Your task to perform on an android device: Open Maps and search for coffee Image 0: 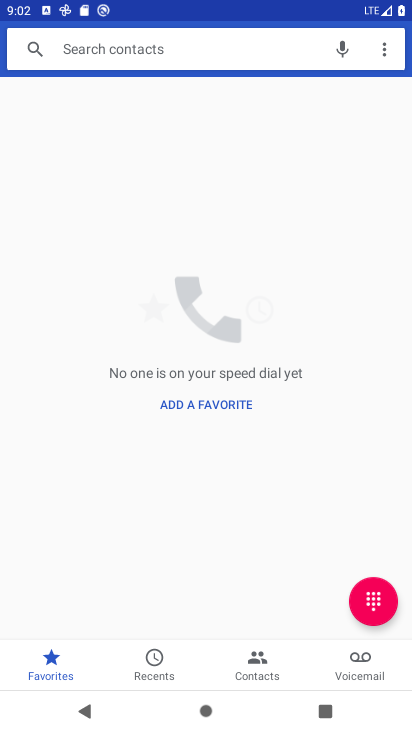
Step 0: press home button
Your task to perform on an android device: Open Maps and search for coffee Image 1: 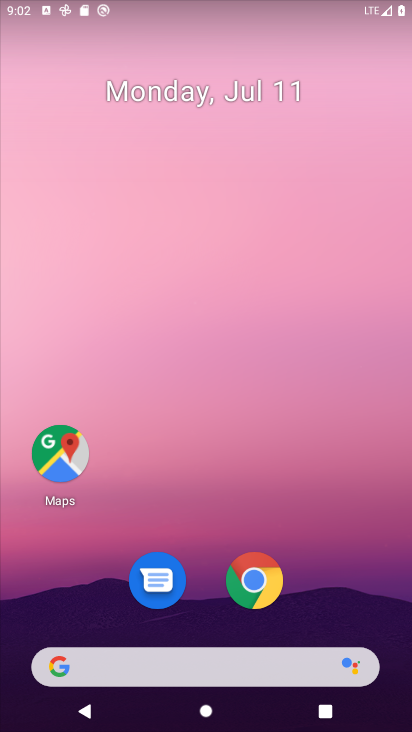
Step 1: click (54, 449)
Your task to perform on an android device: Open Maps and search for coffee Image 2: 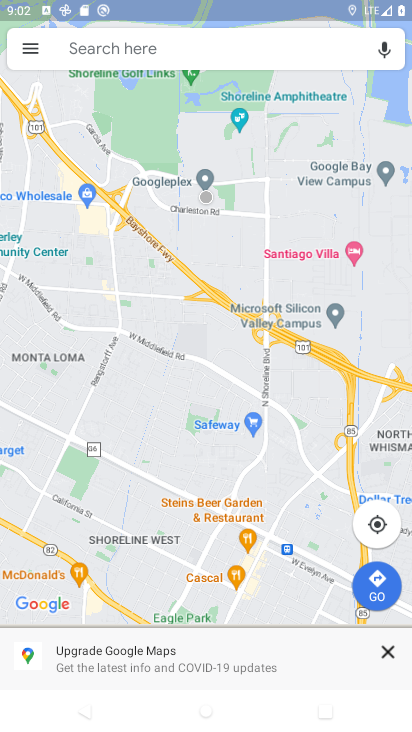
Step 2: click (230, 37)
Your task to perform on an android device: Open Maps and search for coffee Image 3: 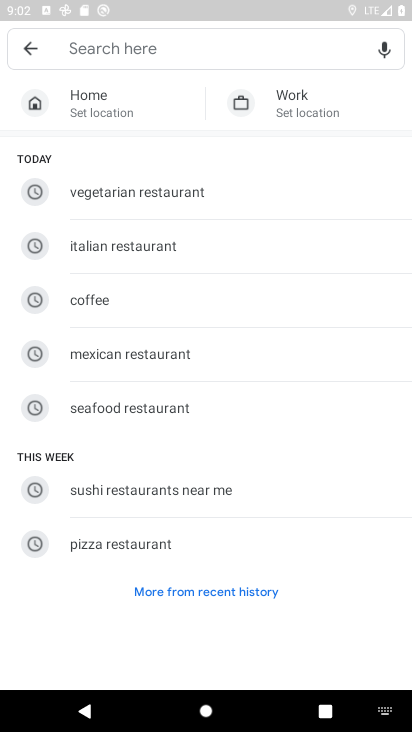
Step 3: click (83, 298)
Your task to perform on an android device: Open Maps and search for coffee Image 4: 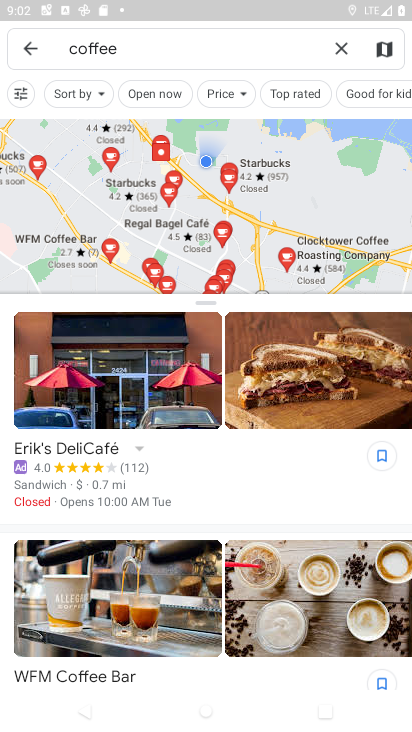
Step 4: task complete